Your task to perform on an android device: Show me the alarms in the clock app Image 0: 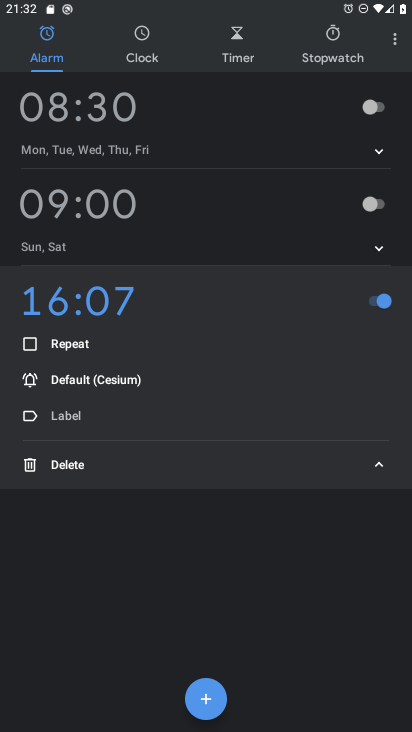
Step 0: press home button
Your task to perform on an android device: Show me the alarms in the clock app Image 1: 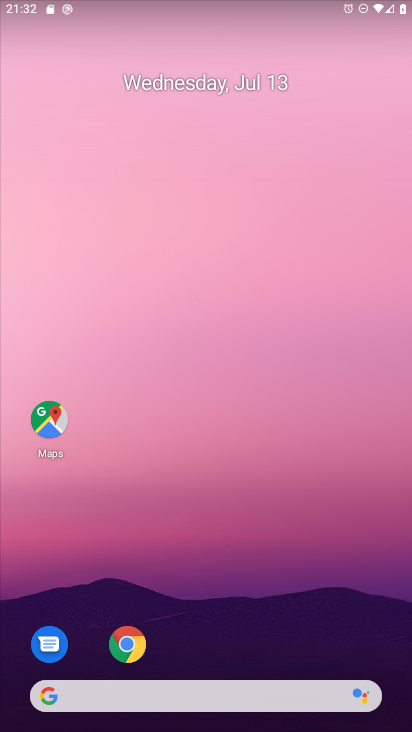
Step 1: drag from (224, 600) to (231, 108)
Your task to perform on an android device: Show me the alarms in the clock app Image 2: 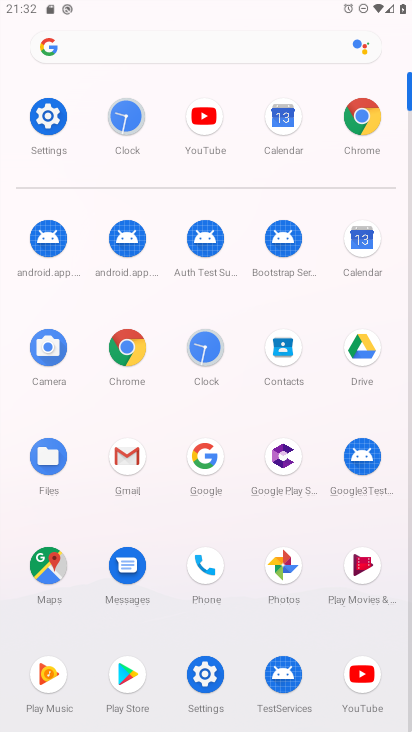
Step 2: click (199, 343)
Your task to perform on an android device: Show me the alarms in the clock app Image 3: 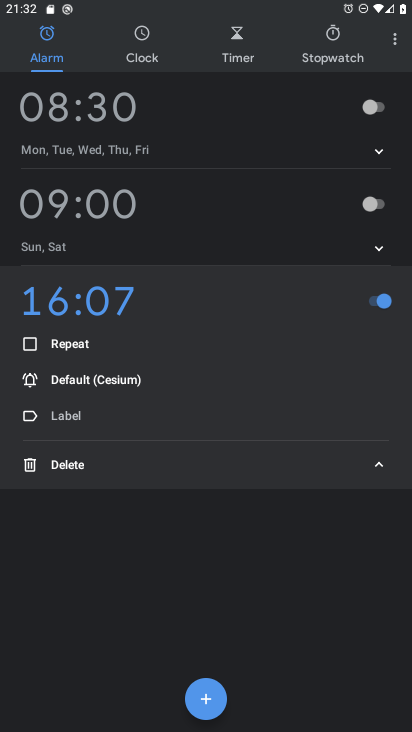
Step 3: task complete